Your task to perform on an android device: Open Wikipedia Image 0: 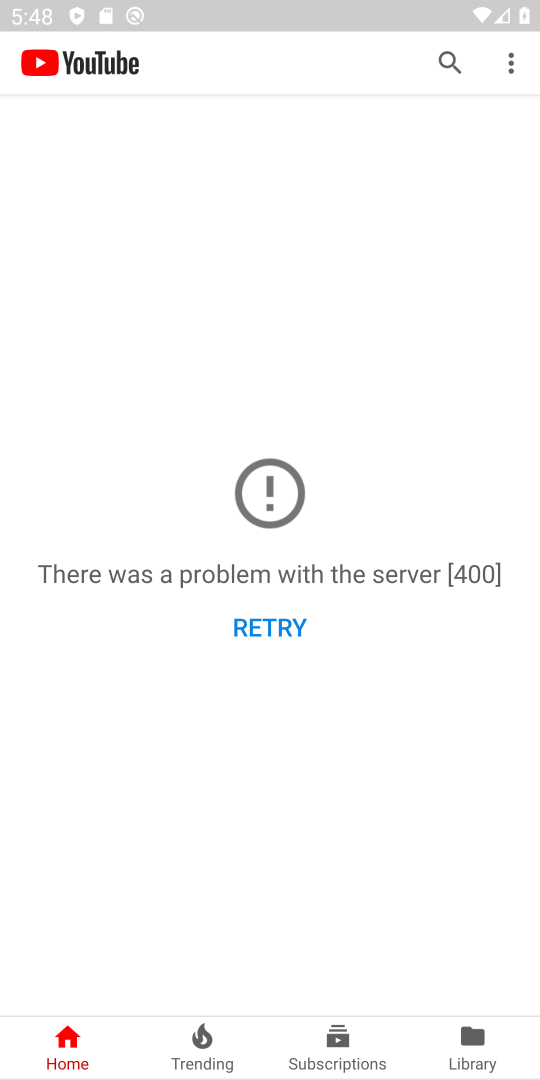
Step 0: press home button
Your task to perform on an android device: Open Wikipedia Image 1: 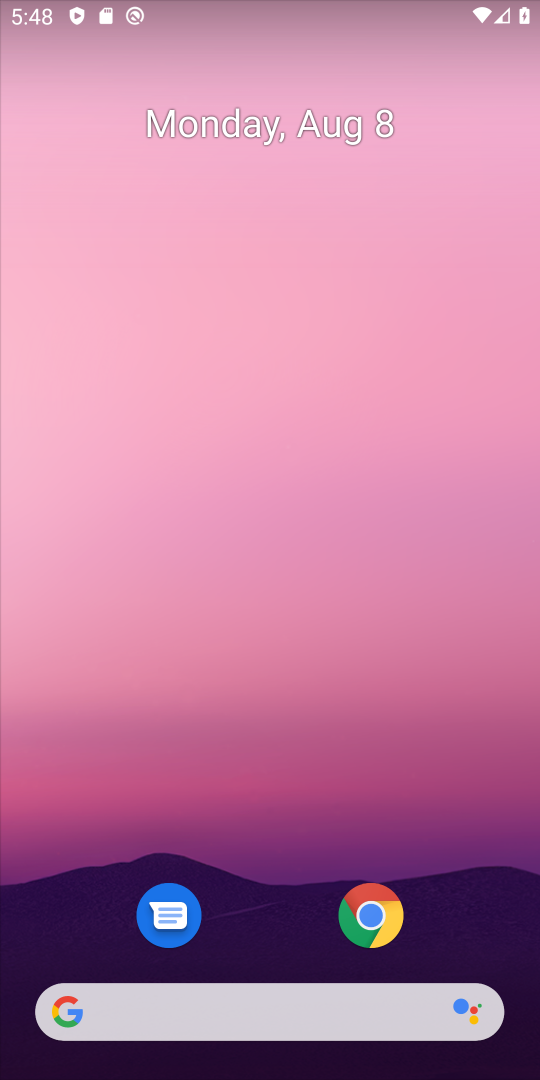
Step 1: click (368, 910)
Your task to perform on an android device: Open Wikipedia Image 2: 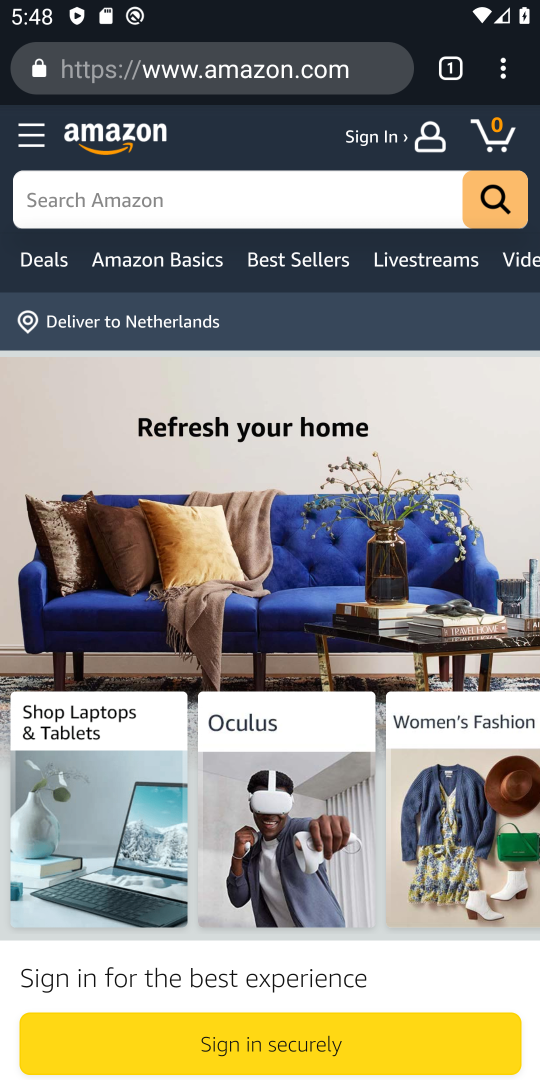
Step 2: click (505, 72)
Your task to perform on an android device: Open Wikipedia Image 3: 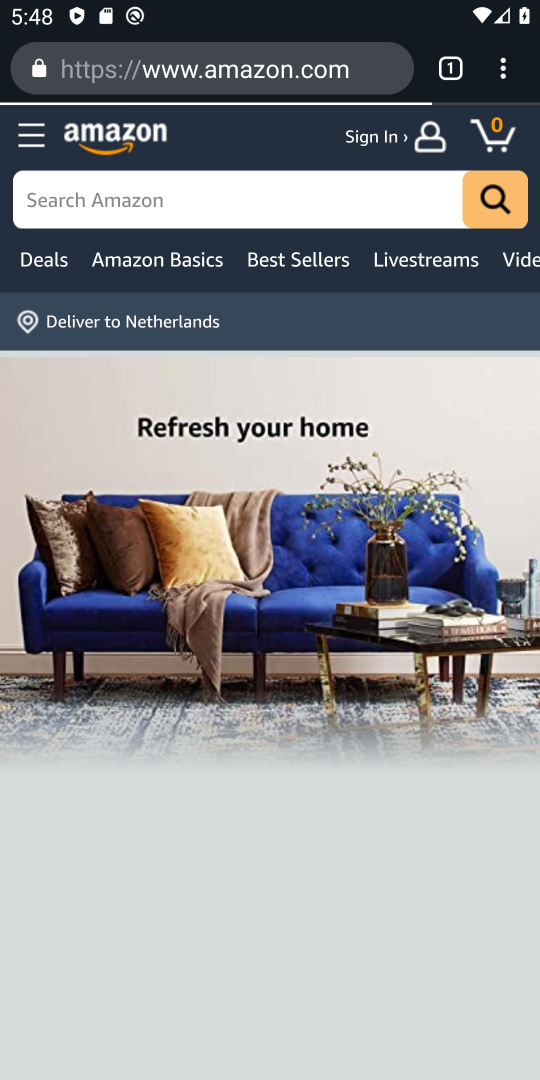
Step 3: click (507, 85)
Your task to perform on an android device: Open Wikipedia Image 4: 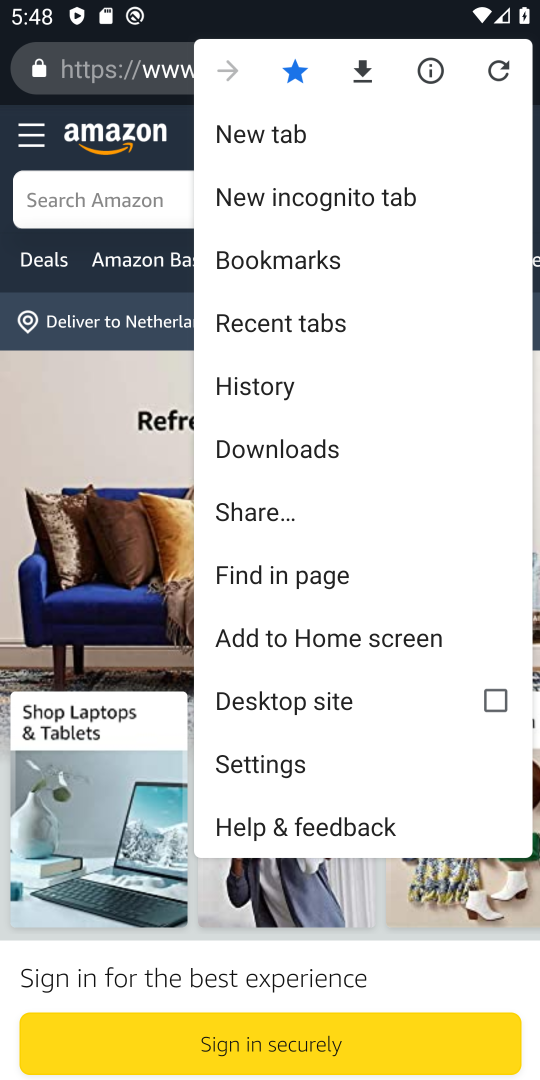
Step 4: click (287, 135)
Your task to perform on an android device: Open Wikipedia Image 5: 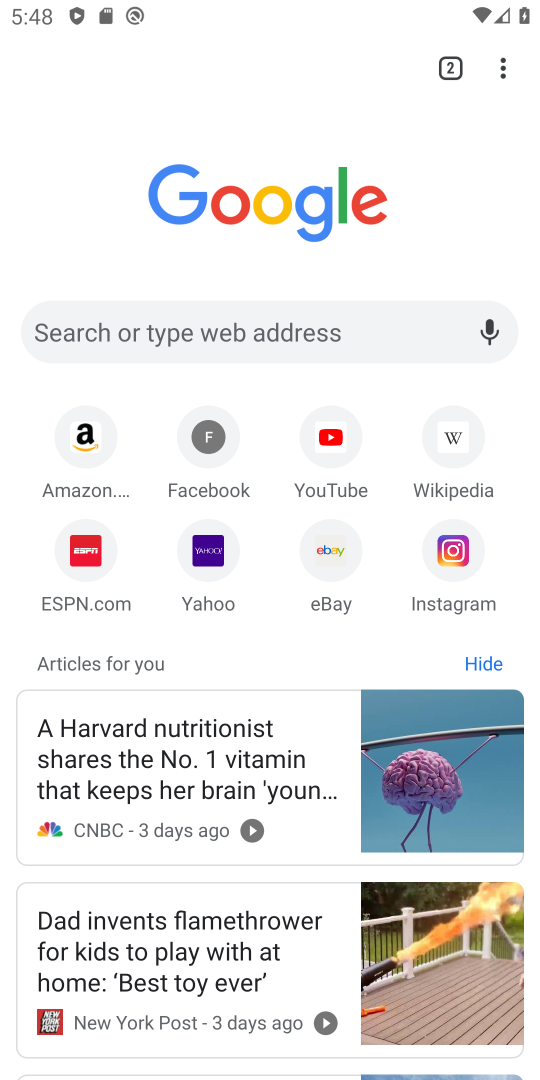
Step 5: click (449, 441)
Your task to perform on an android device: Open Wikipedia Image 6: 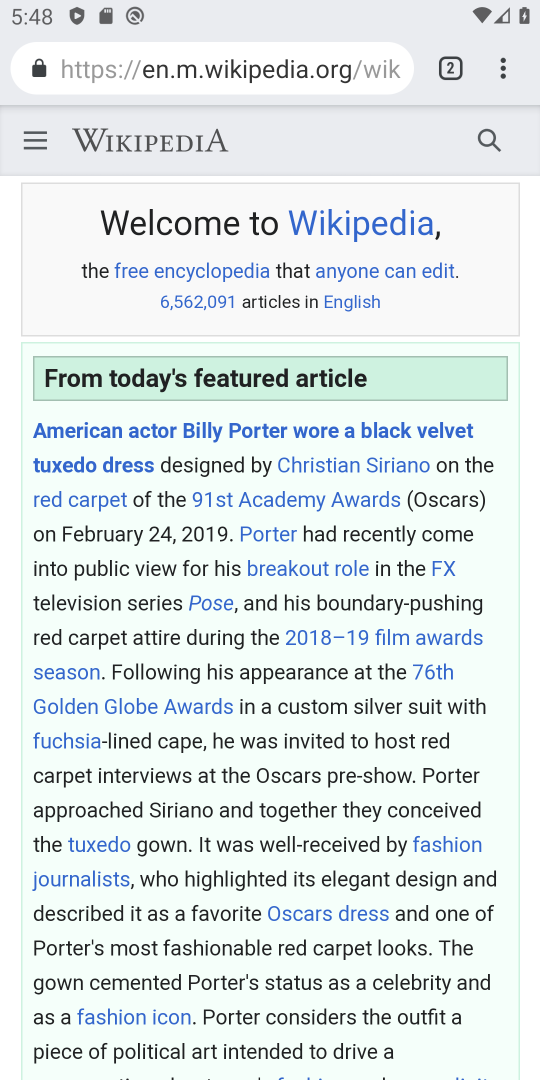
Step 6: task complete